Your task to perform on an android device: open app "Spotify: Music and Podcasts" (install if not already installed) and enter user name: "principled@inbox.com" and password: "arrests" Image 0: 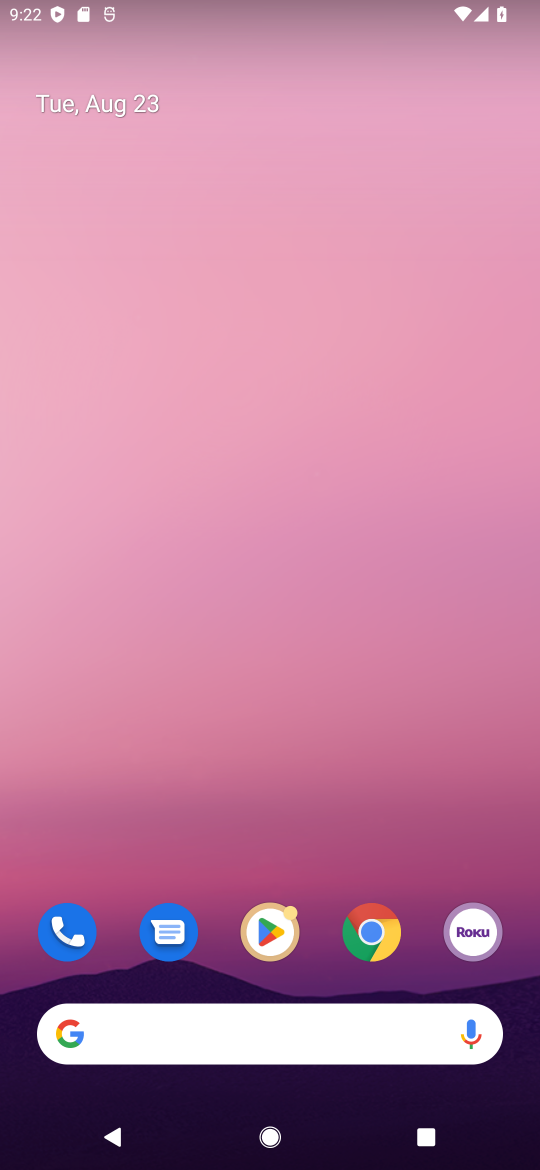
Step 0: click (280, 930)
Your task to perform on an android device: open app "Spotify: Music and Podcasts" (install if not already installed) and enter user name: "principled@inbox.com" and password: "arrests" Image 1: 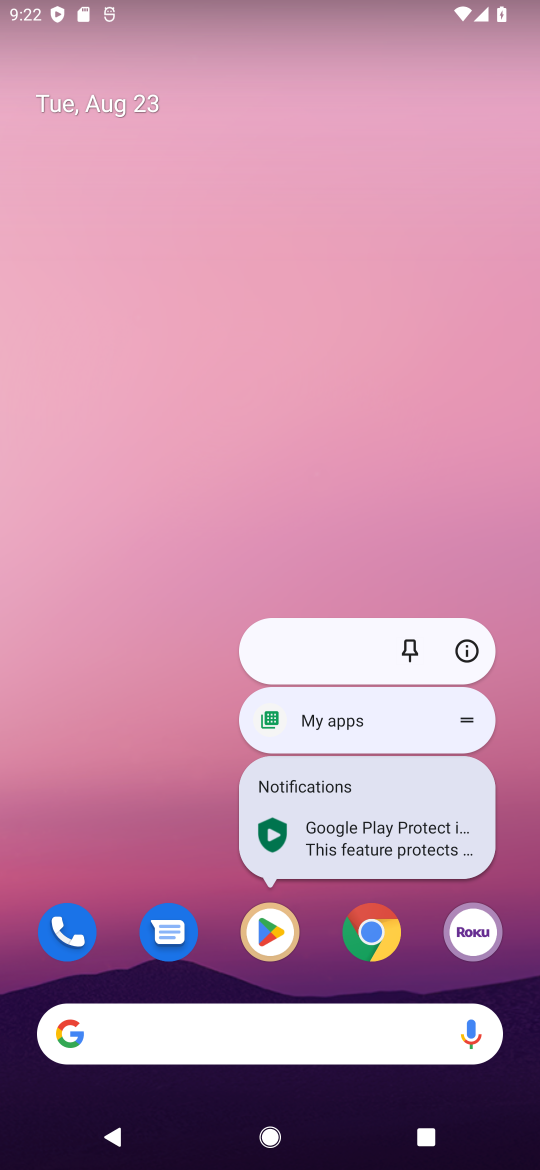
Step 1: click (164, 810)
Your task to perform on an android device: open app "Spotify: Music and Podcasts" (install if not already installed) and enter user name: "principled@inbox.com" and password: "arrests" Image 2: 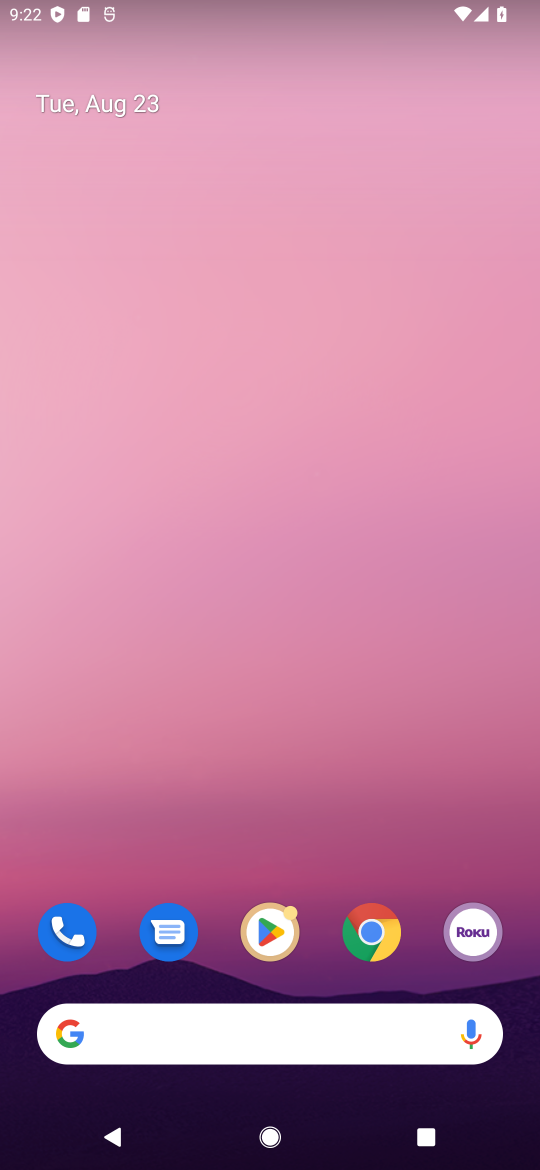
Step 2: drag from (158, 829) to (385, 45)
Your task to perform on an android device: open app "Spotify: Music and Podcasts" (install if not already installed) and enter user name: "principled@inbox.com" and password: "arrests" Image 3: 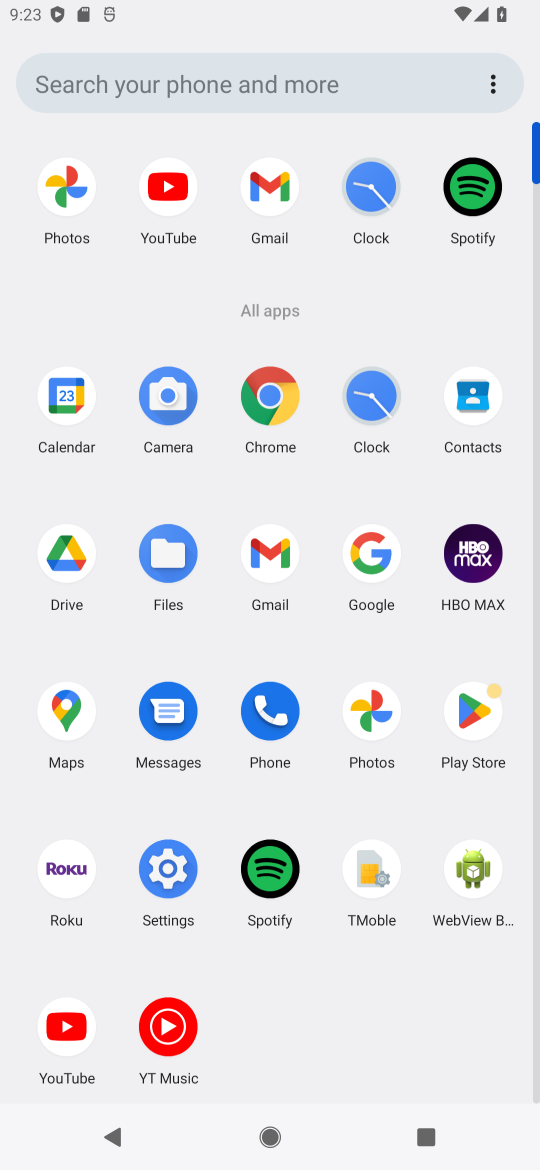
Step 3: click (474, 197)
Your task to perform on an android device: open app "Spotify: Music and Podcasts" (install if not already installed) and enter user name: "principled@inbox.com" and password: "arrests" Image 4: 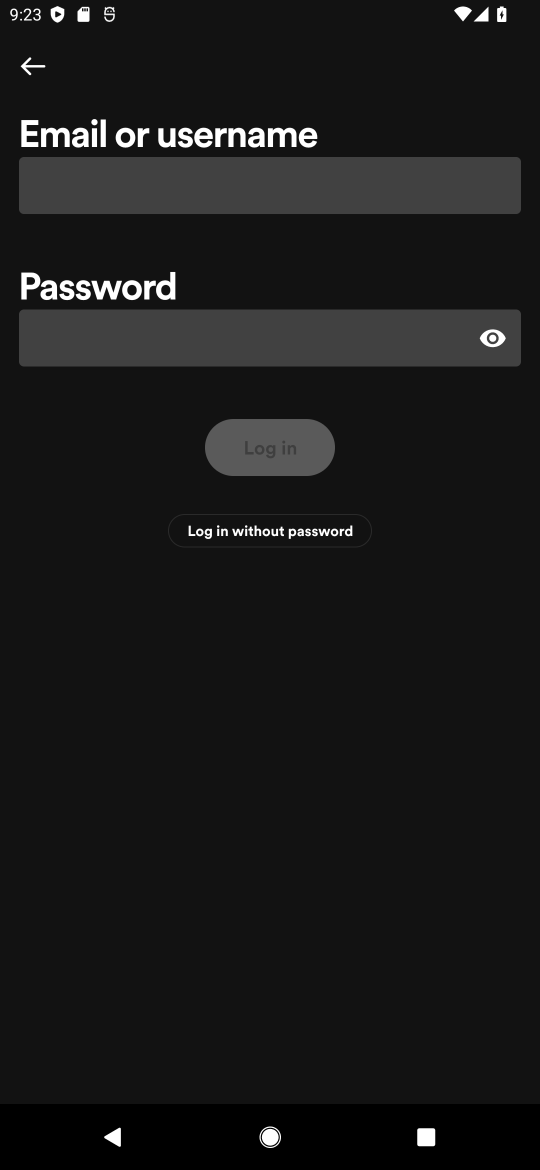
Step 4: click (199, 176)
Your task to perform on an android device: open app "Spotify: Music and Podcasts" (install if not already installed) and enter user name: "principled@inbox.com" and password: "arrests" Image 5: 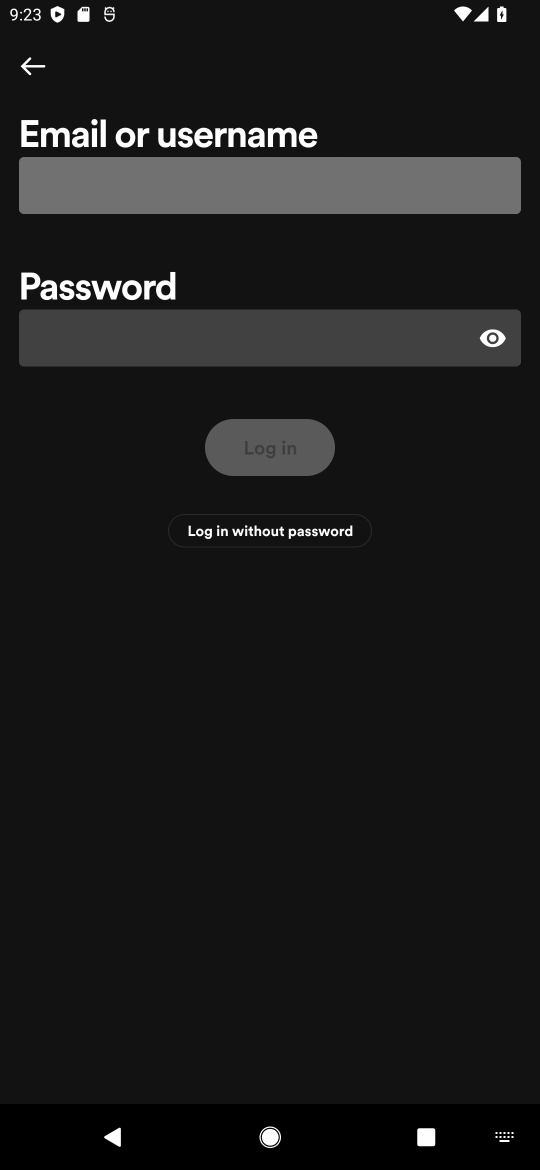
Step 5: click (134, 191)
Your task to perform on an android device: open app "Spotify: Music and Podcasts" (install if not already installed) and enter user name: "principled@inbox.com" and password: "arrests" Image 6: 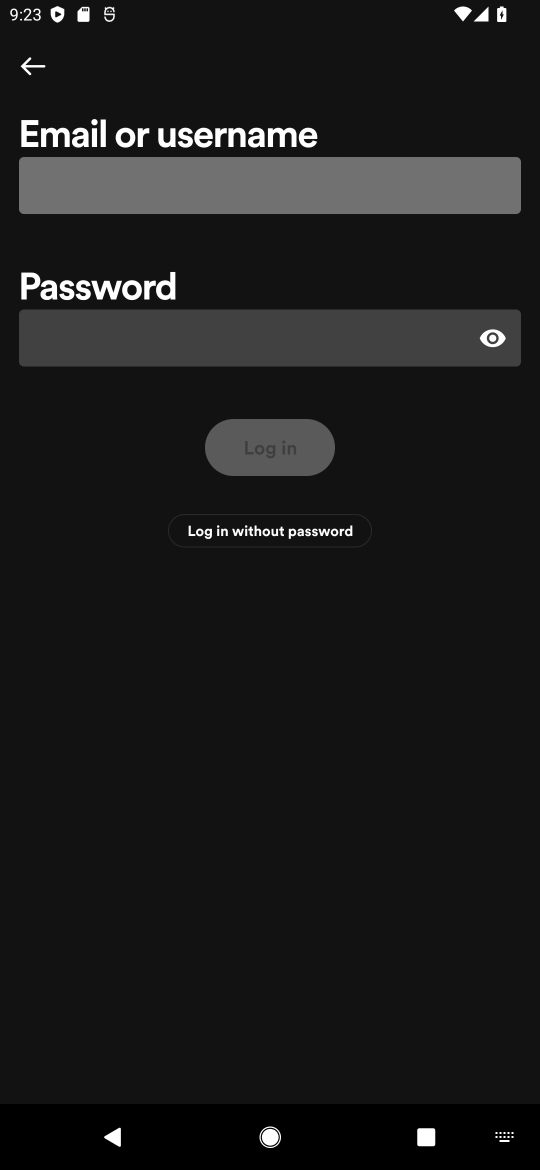
Step 6: type "principled@inbox.com"
Your task to perform on an android device: open app "Spotify: Music and Podcasts" (install if not already installed) and enter user name: "principled@inbox.com" and password: "arrests" Image 7: 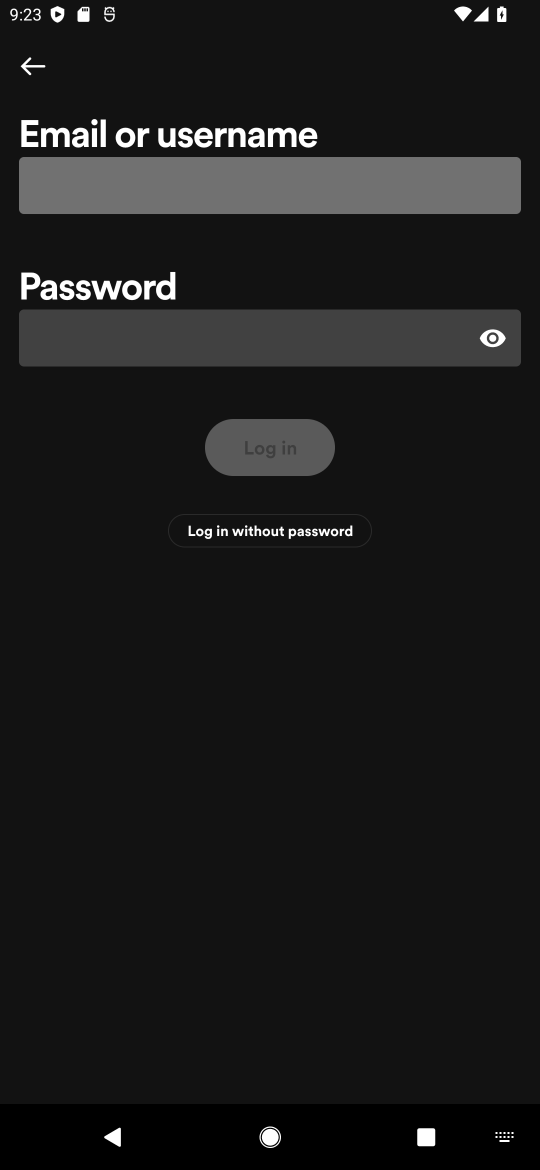
Step 7: click (112, 779)
Your task to perform on an android device: open app "Spotify: Music and Podcasts" (install if not already installed) and enter user name: "principled@inbox.com" and password: "arrests" Image 8: 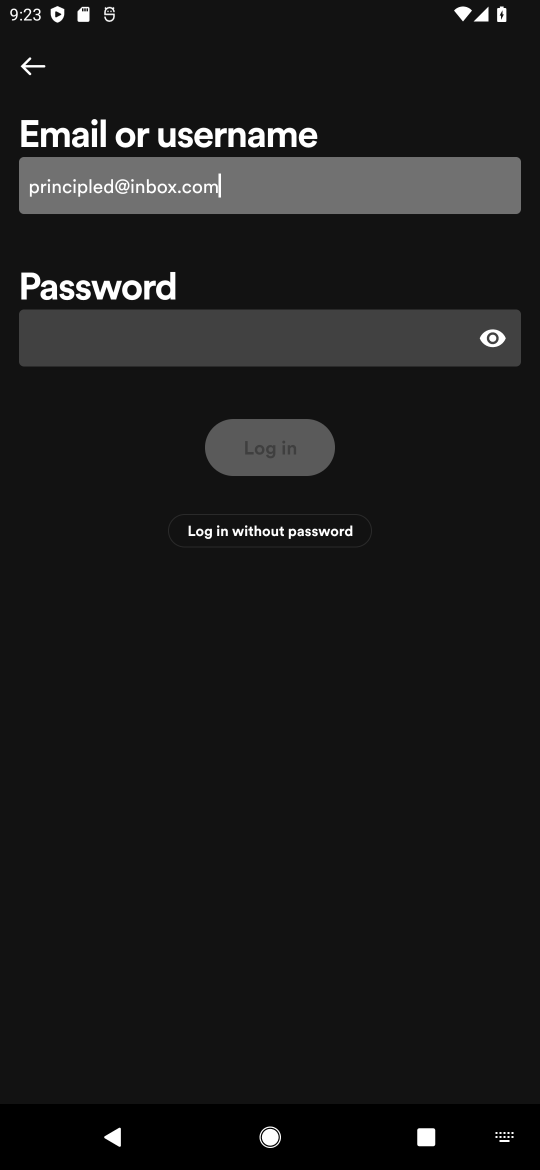
Step 8: click (91, 339)
Your task to perform on an android device: open app "Spotify: Music and Podcasts" (install if not already installed) and enter user name: "principled@inbox.com" and password: "arrests" Image 9: 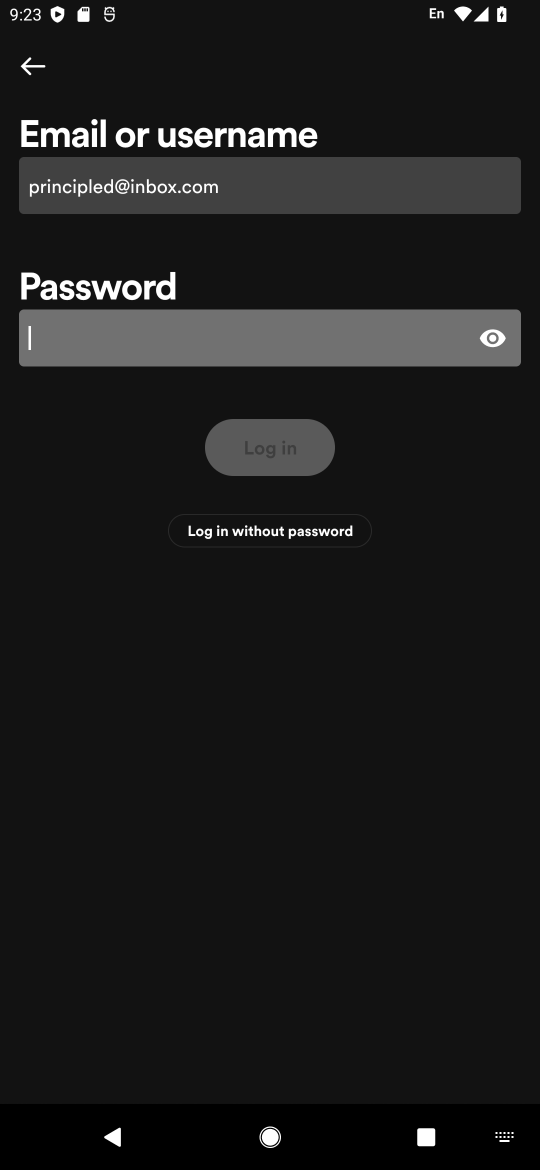
Step 9: click (71, 345)
Your task to perform on an android device: open app "Spotify: Music and Podcasts" (install if not already installed) and enter user name: "principled@inbox.com" and password: "arrests" Image 10: 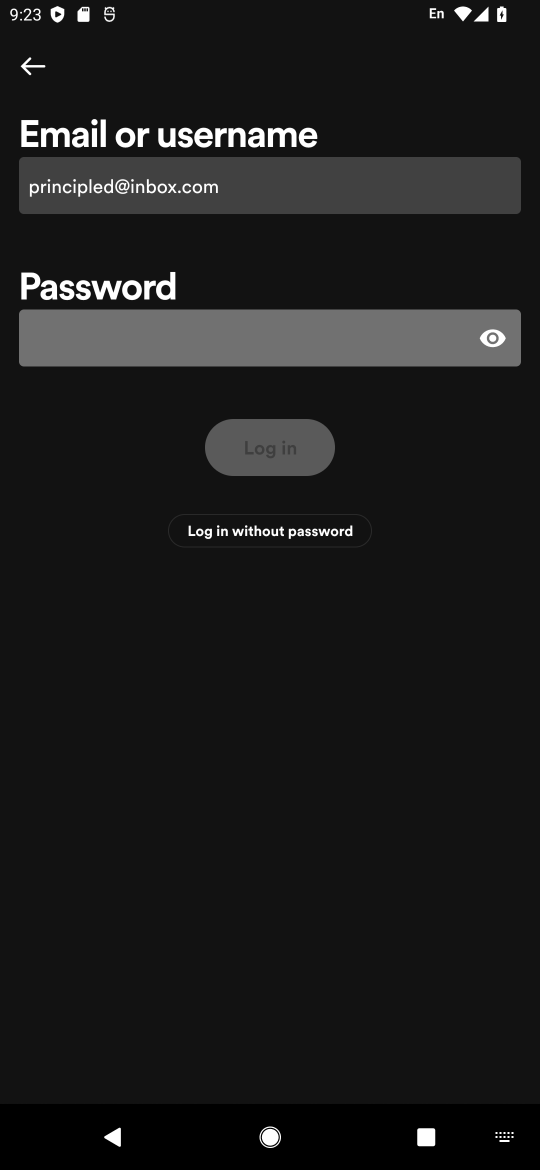
Step 10: type "arrests"
Your task to perform on an android device: open app "Spotify: Music and Podcasts" (install if not already installed) and enter user name: "principled@inbox.com" and password: "arrests" Image 11: 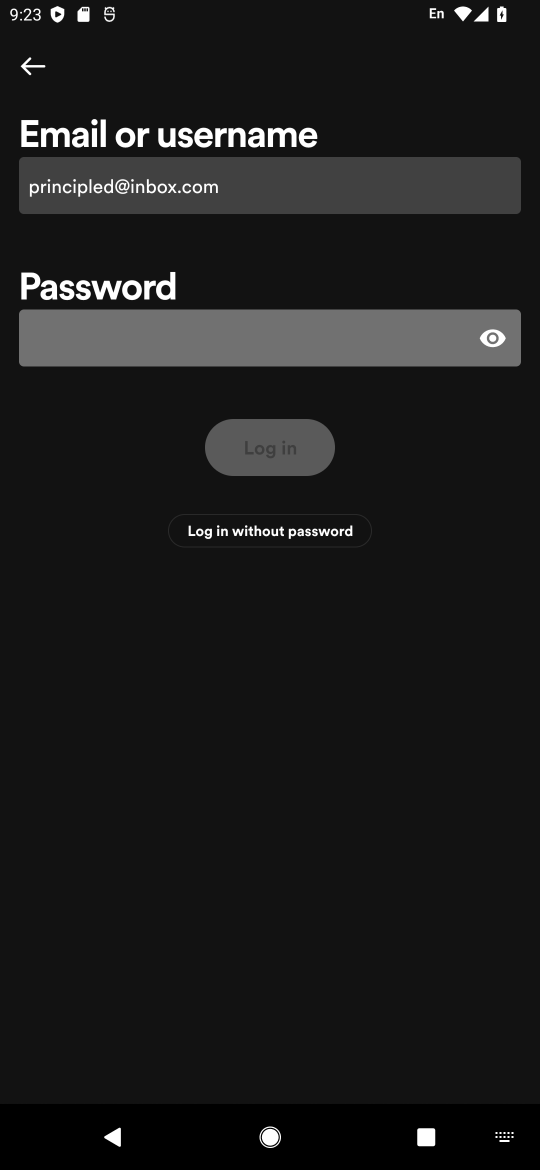
Step 11: click (212, 742)
Your task to perform on an android device: open app "Spotify: Music and Podcasts" (install if not already installed) and enter user name: "principled@inbox.com" and password: "arrests" Image 12: 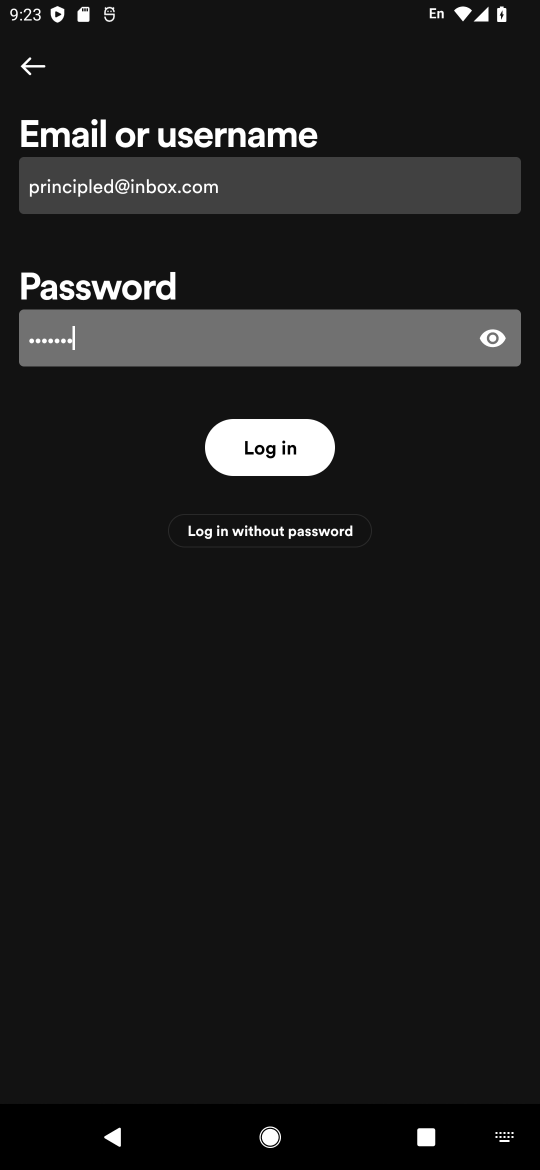
Step 12: task complete